Your task to perform on an android device: Open display settings Image 0: 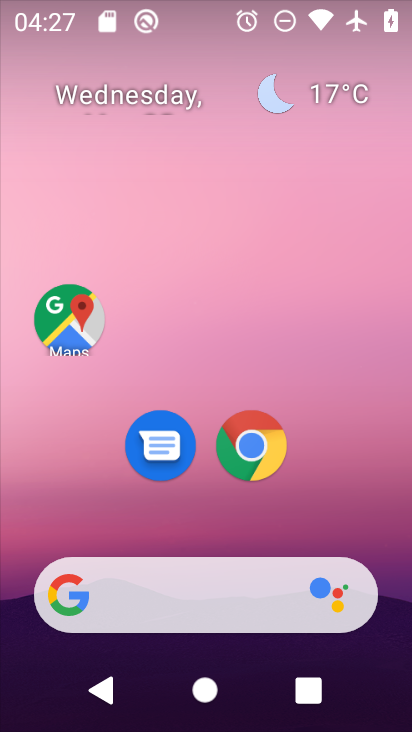
Step 0: drag from (191, 582) to (140, 0)
Your task to perform on an android device: Open display settings Image 1: 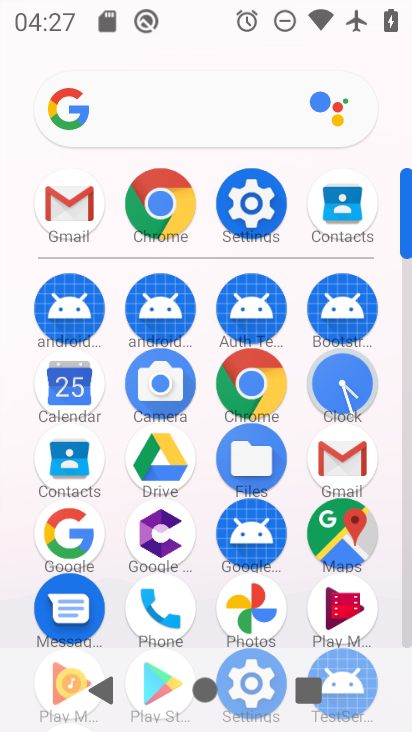
Step 1: click (252, 189)
Your task to perform on an android device: Open display settings Image 2: 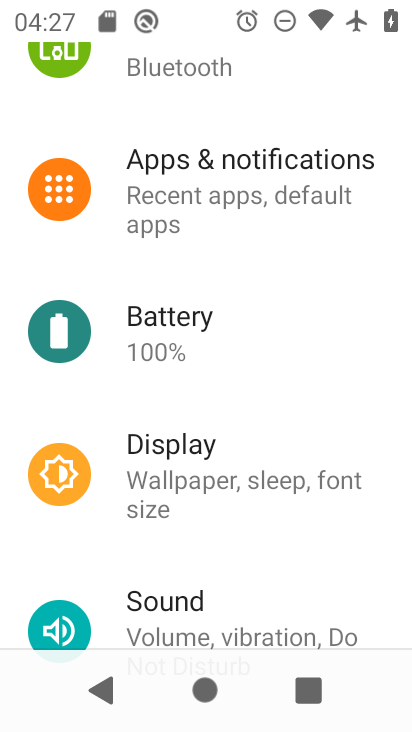
Step 2: click (192, 495)
Your task to perform on an android device: Open display settings Image 3: 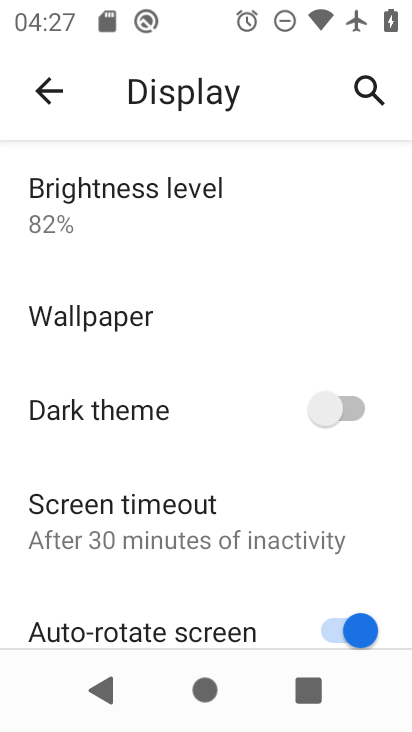
Step 3: task complete